Your task to perform on an android device: Open Yahoo.com Image 0: 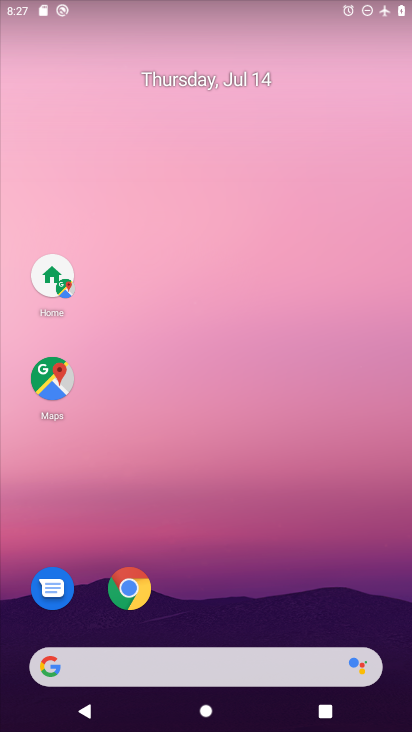
Step 0: click (186, 193)
Your task to perform on an android device: Open Yahoo.com Image 1: 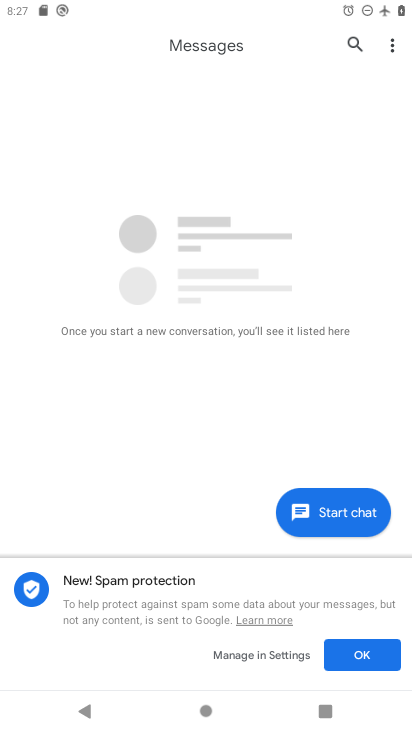
Step 1: press home button
Your task to perform on an android device: Open Yahoo.com Image 2: 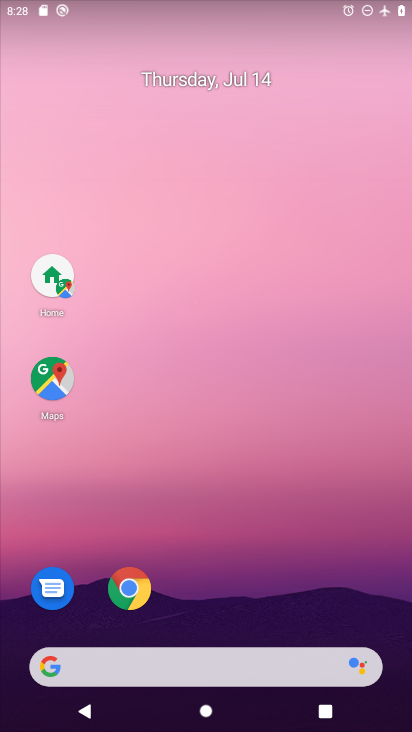
Step 2: click (151, 653)
Your task to perform on an android device: Open Yahoo.com Image 3: 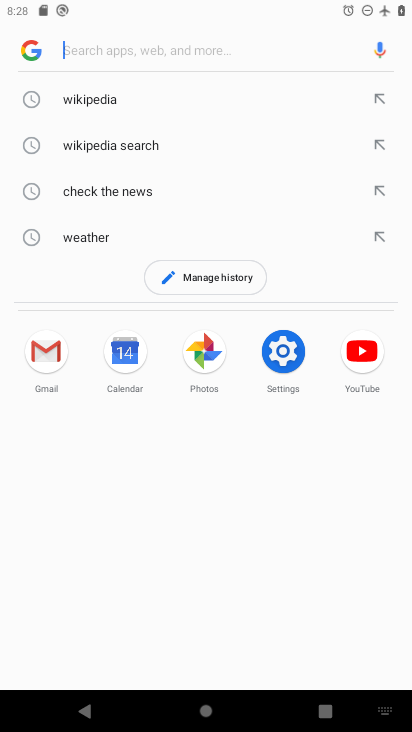
Step 3: type "Yahoo.com"
Your task to perform on an android device: Open Yahoo.com Image 4: 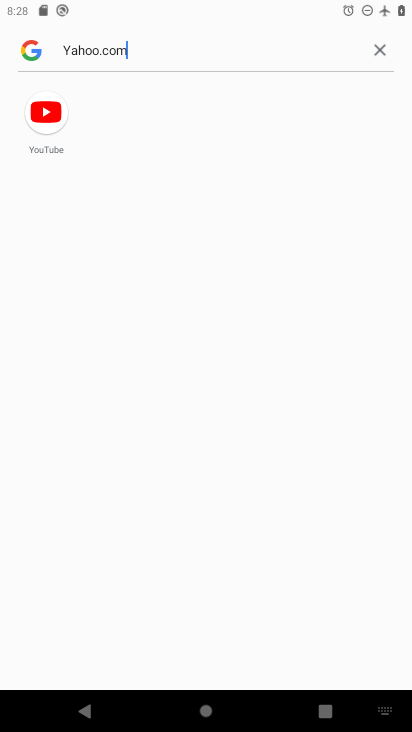
Step 4: type ""
Your task to perform on an android device: Open Yahoo.com Image 5: 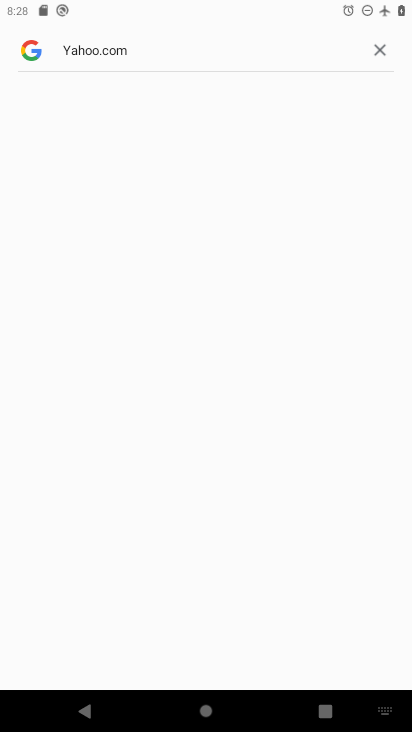
Step 5: type ""
Your task to perform on an android device: Open Yahoo.com Image 6: 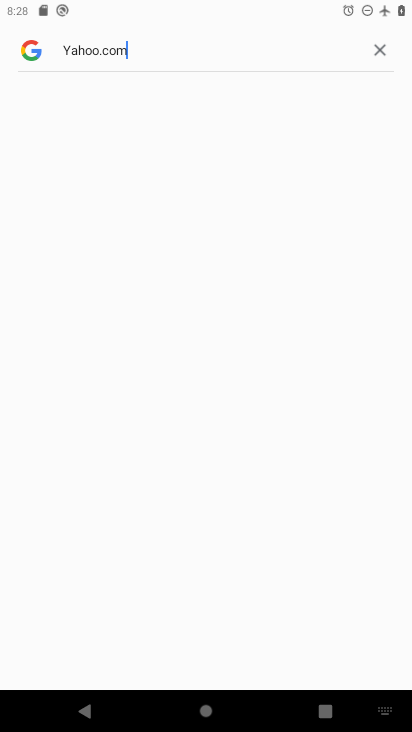
Step 6: type ""
Your task to perform on an android device: Open Yahoo.com Image 7: 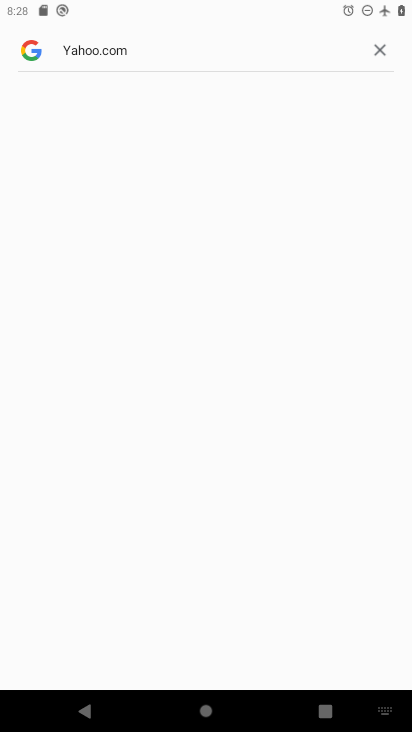
Step 7: type ""
Your task to perform on an android device: Open Yahoo.com Image 8: 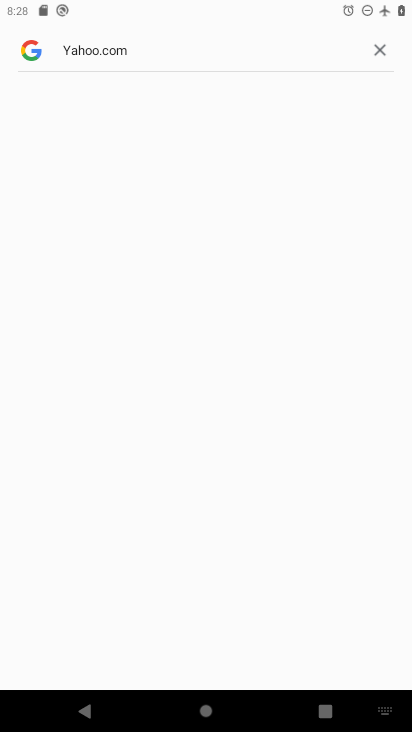
Step 8: task complete